Your task to perform on an android device: Go to Yahoo.com Image 0: 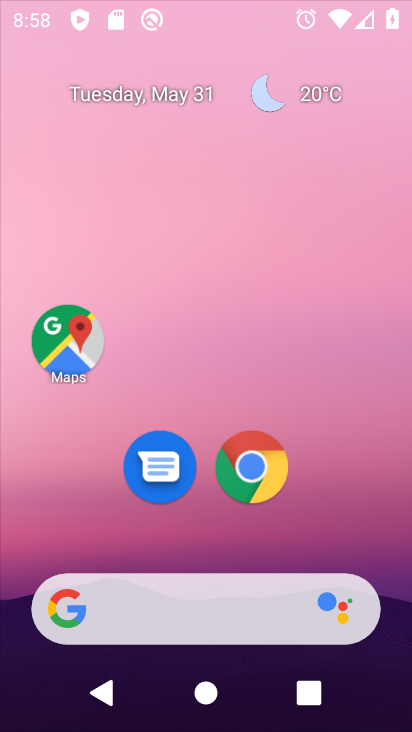
Step 0: drag from (273, 9) to (312, 0)
Your task to perform on an android device: Go to Yahoo.com Image 1: 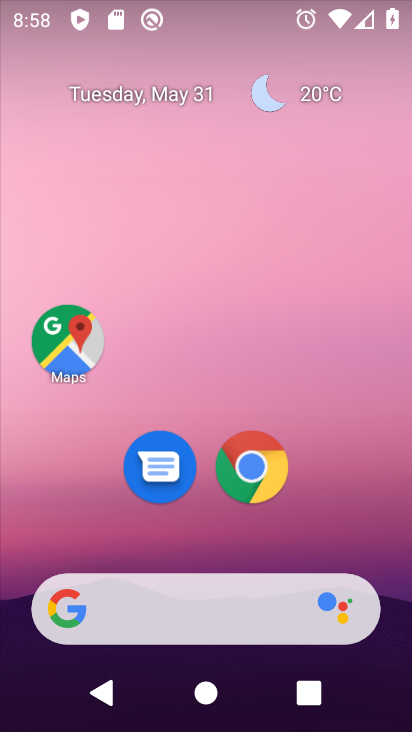
Step 1: drag from (209, 516) to (212, 225)
Your task to perform on an android device: Go to Yahoo.com Image 2: 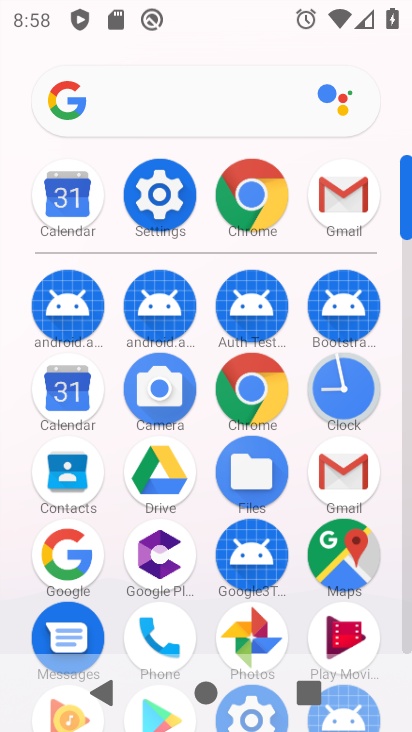
Step 2: click (174, 98)
Your task to perform on an android device: Go to Yahoo.com Image 3: 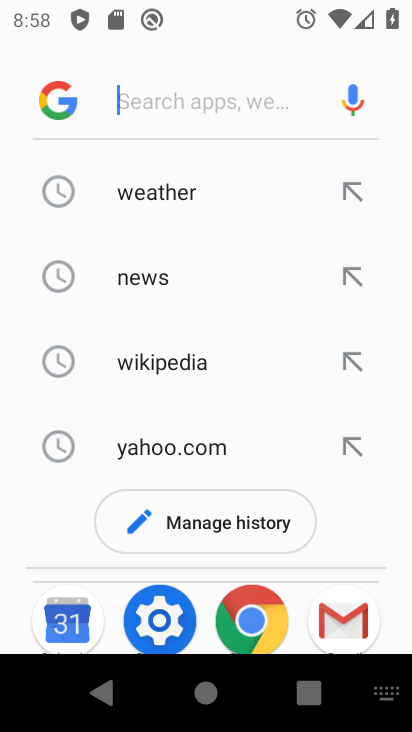
Step 3: click (183, 450)
Your task to perform on an android device: Go to Yahoo.com Image 4: 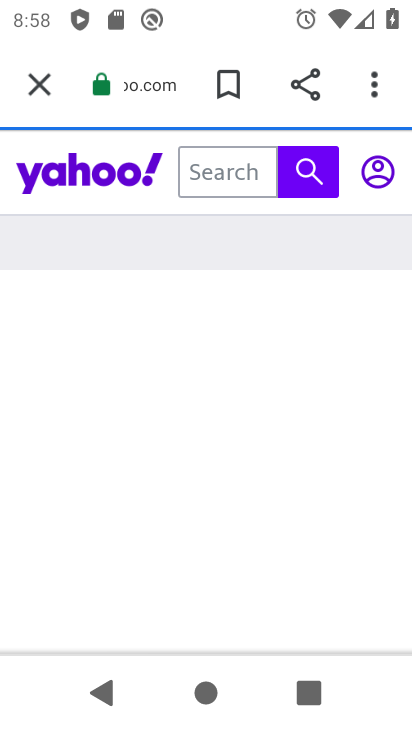
Step 4: task complete